Your task to perform on an android device: search for starred emails in the gmail app Image 0: 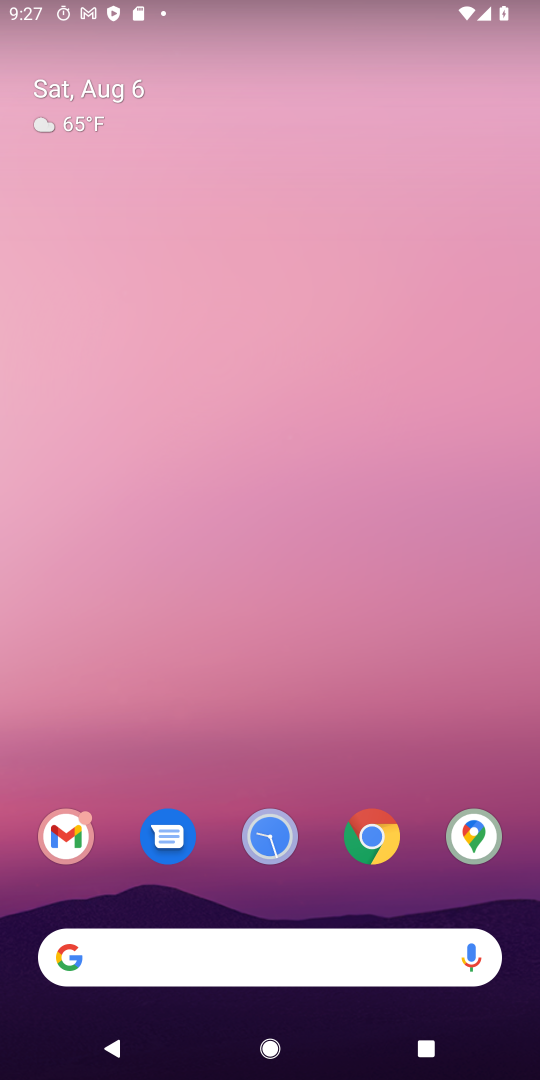
Step 0: drag from (448, 904) to (204, 101)
Your task to perform on an android device: search for starred emails in the gmail app Image 1: 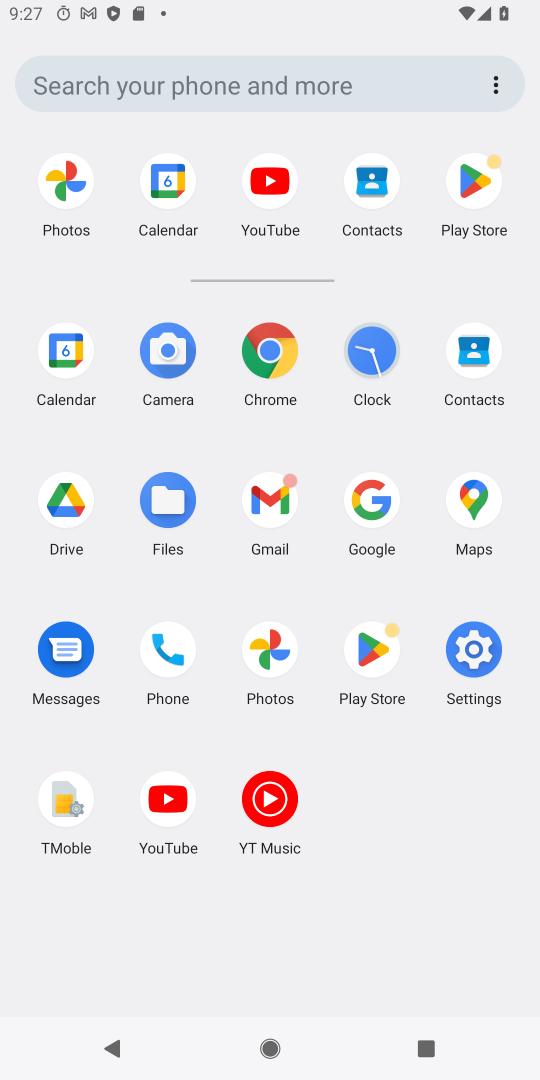
Step 1: click (272, 517)
Your task to perform on an android device: search for starred emails in the gmail app Image 2: 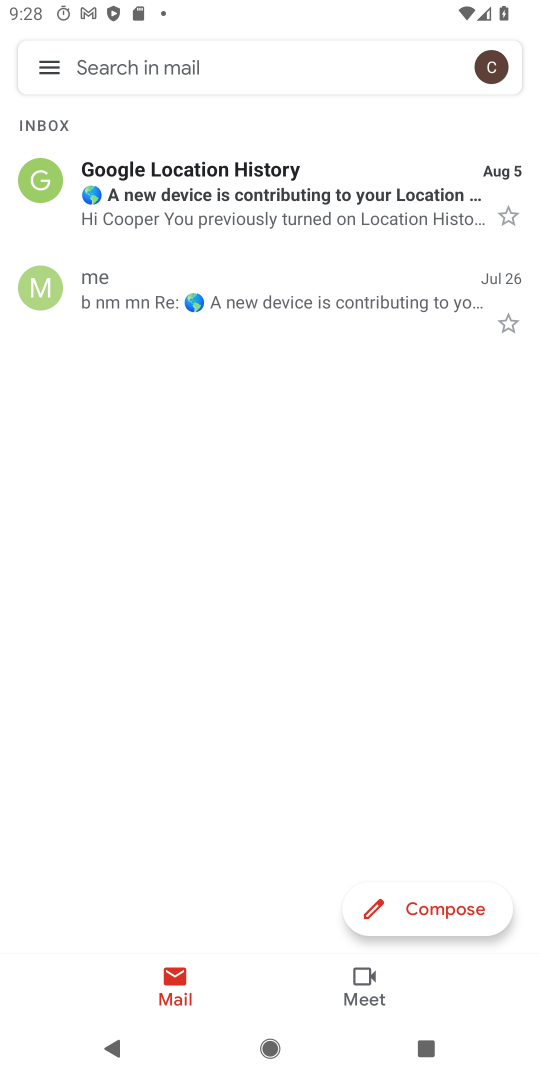
Step 2: click (43, 63)
Your task to perform on an android device: search for starred emails in the gmail app Image 3: 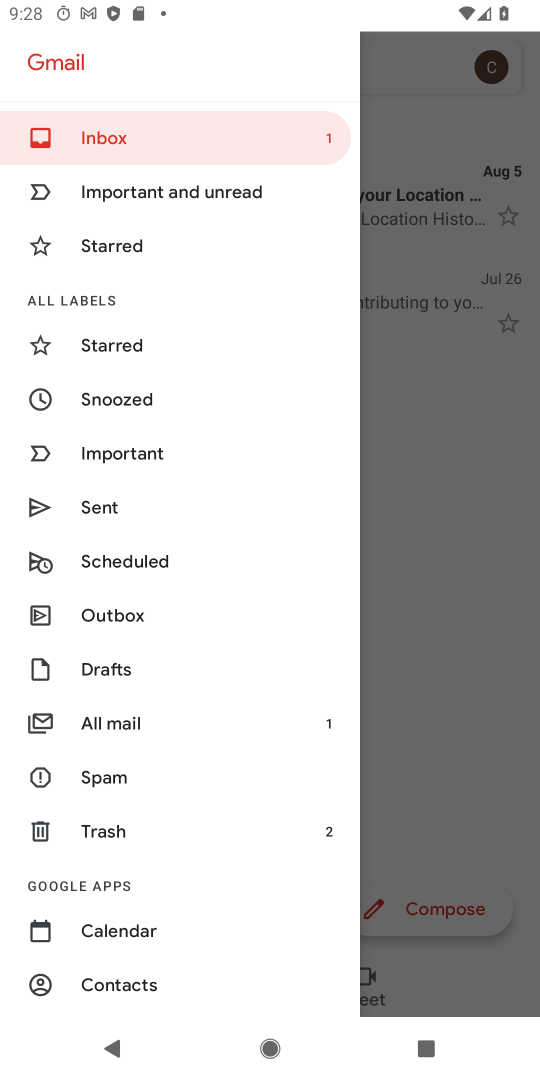
Step 3: click (115, 352)
Your task to perform on an android device: search for starred emails in the gmail app Image 4: 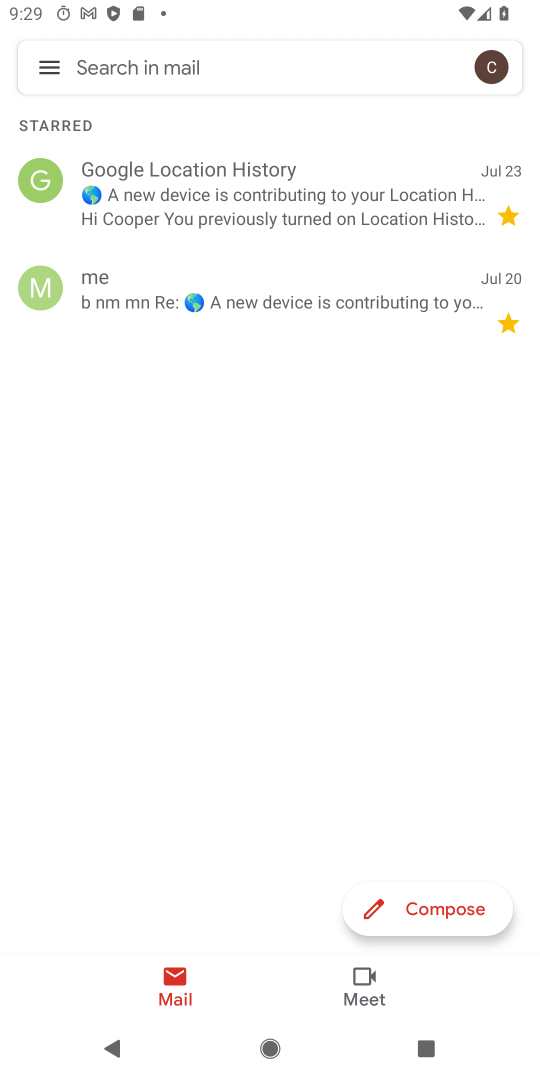
Step 4: task complete